Your task to perform on an android device: Check the settings for the Amazon Music app Image 0: 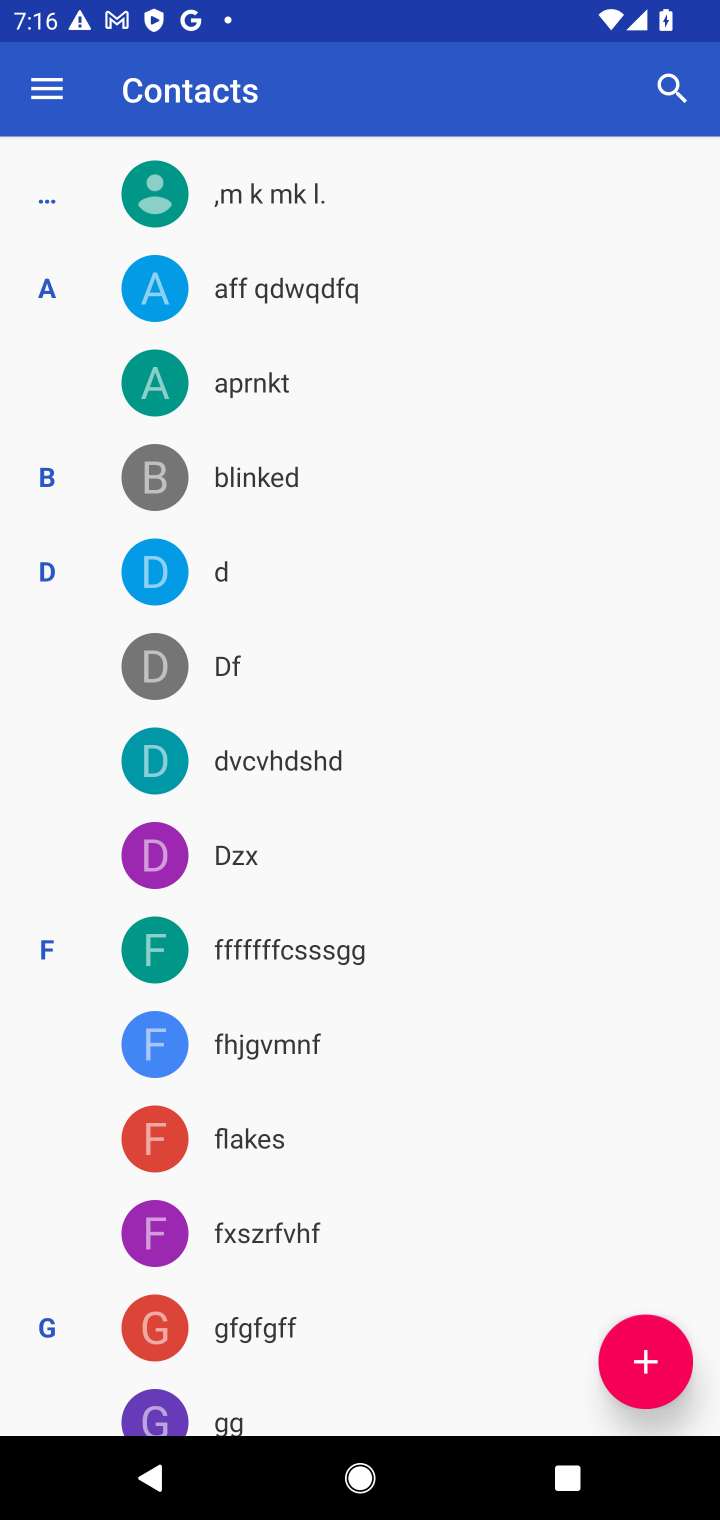
Step 0: press home button
Your task to perform on an android device: Check the settings for the Amazon Music app Image 1: 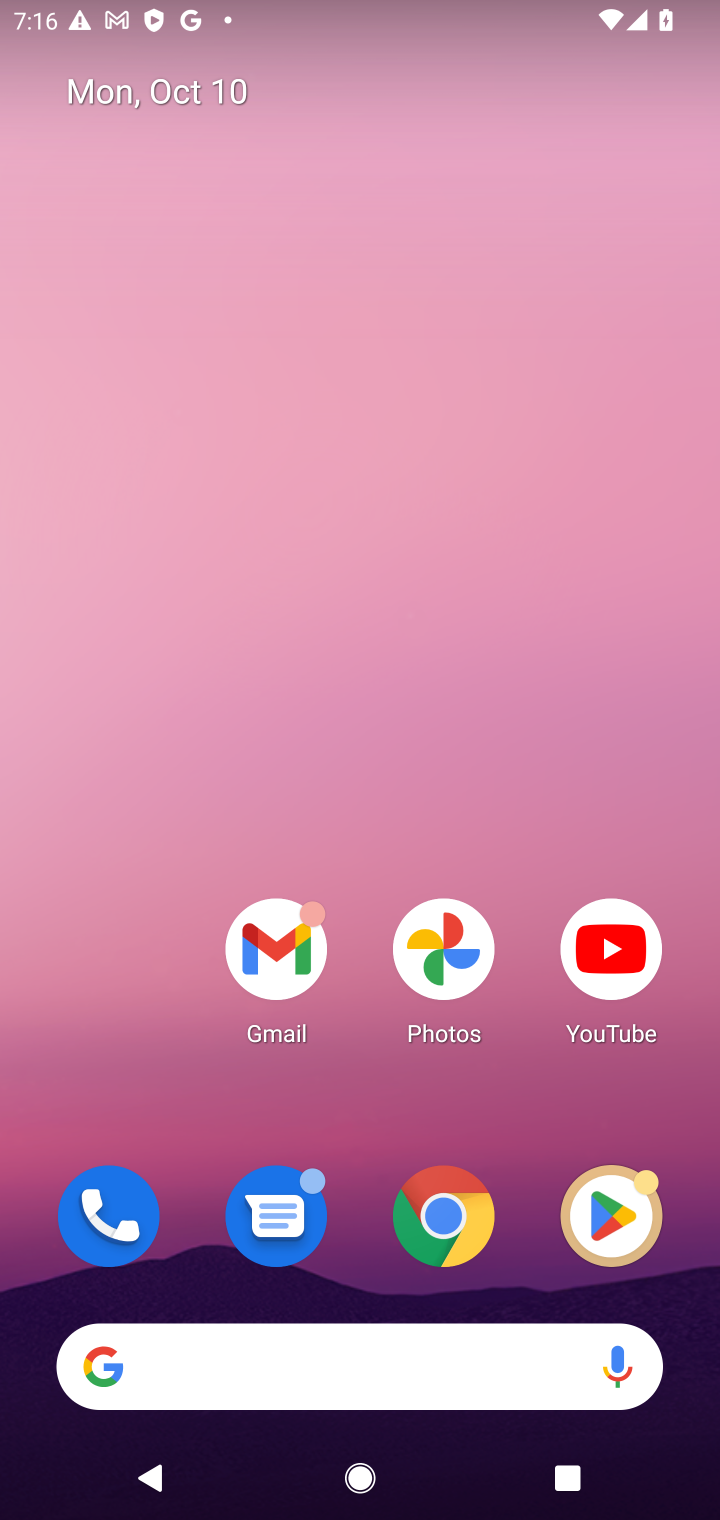
Step 1: task complete